Your task to perform on an android device: Go to location settings Image 0: 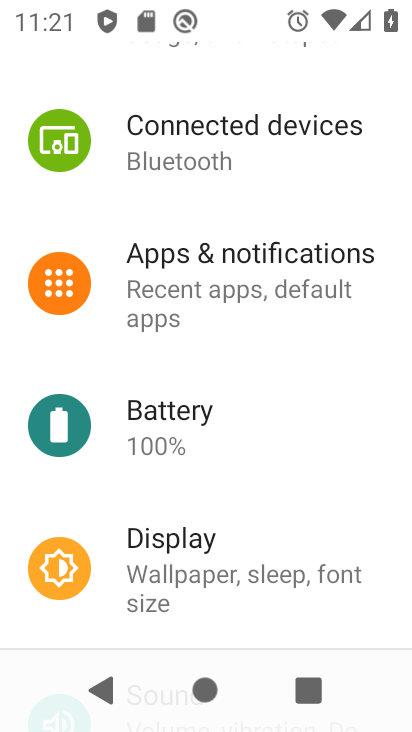
Step 0: press home button
Your task to perform on an android device: Go to location settings Image 1: 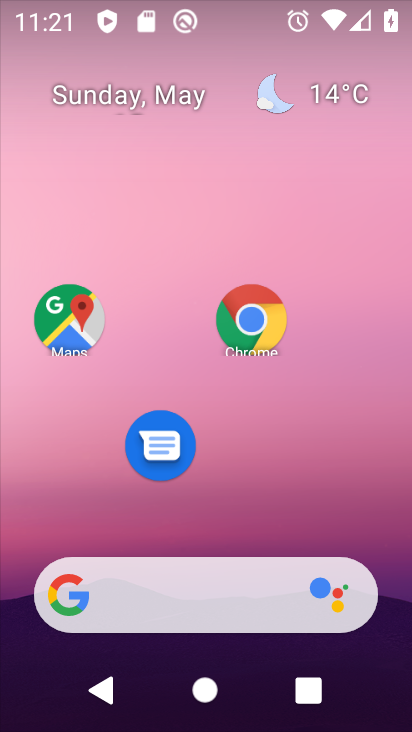
Step 1: drag from (172, 595) to (292, 122)
Your task to perform on an android device: Go to location settings Image 2: 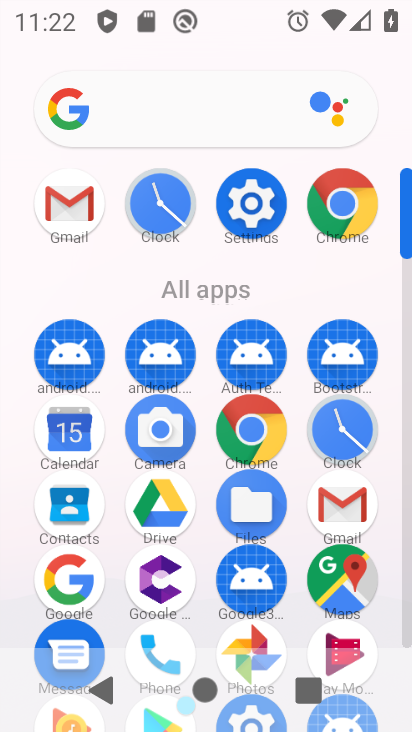
Step 2: drag from (197, 615) to (282, 329)
Your task to perform on an android device: Go to location settings Image 3: 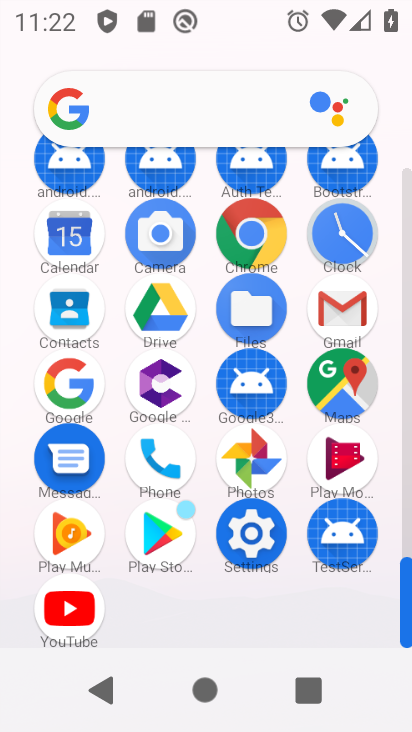
Step 3: click (262, 545)
Your task to perform on an android device: Go to location settings Image 4: 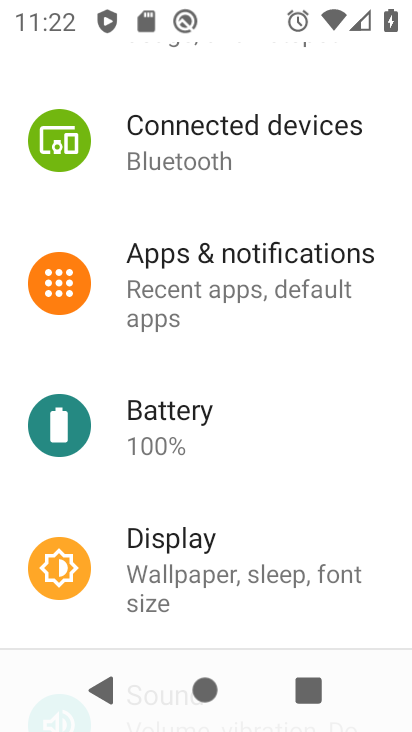
Step 4: drag from (264, 515) to (352, 78)
Your task to perform on an android device: Go to location settings Image 5: 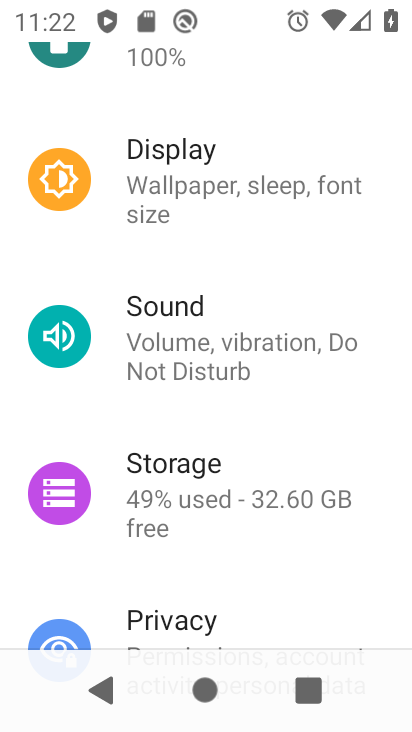
Step 5: drag from (244, 572) to (330, 198)
Your task to perform on an android device: Go to location settings Image 6: 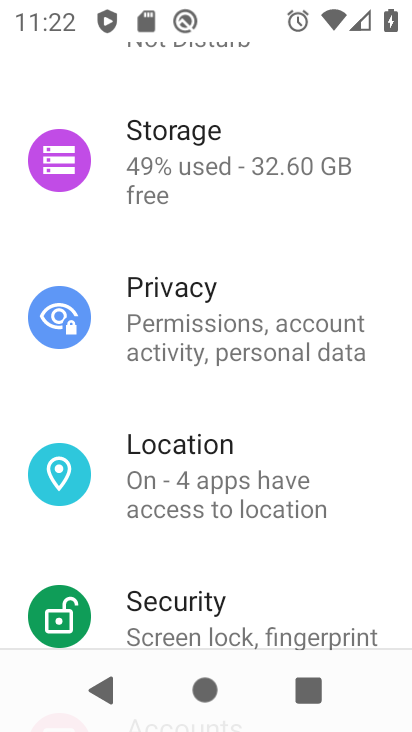
Step 6: click (188, 452)
Your task to perform on an android device: Go to location settings Image 7: 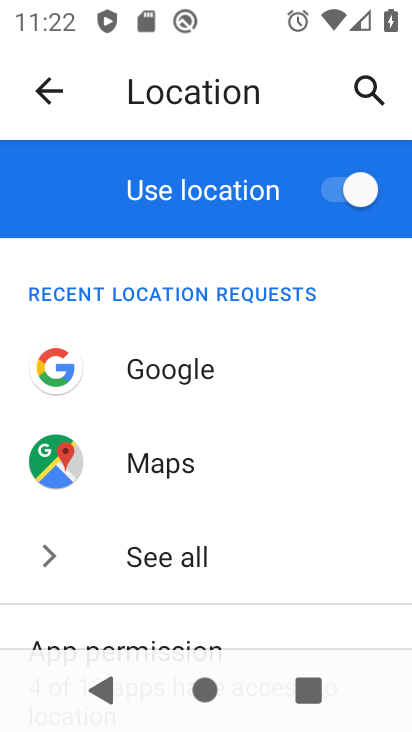
Step 7: task complete